Your task to perform on an android device: Go to privacy settings Image 0: 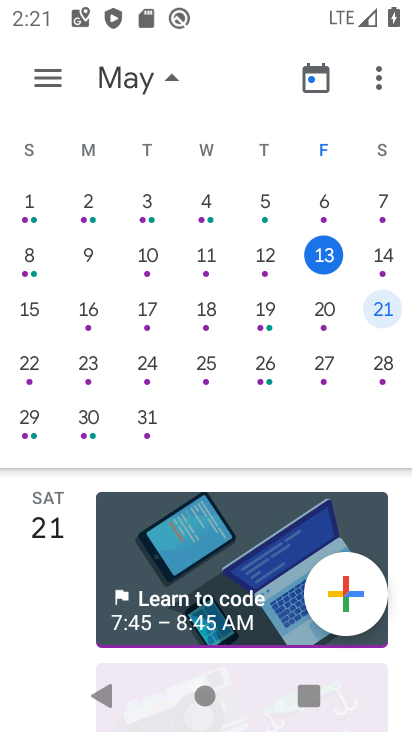
Step 0: press home button
Your task to perform on an android device: Go to privacy settings Image 1: 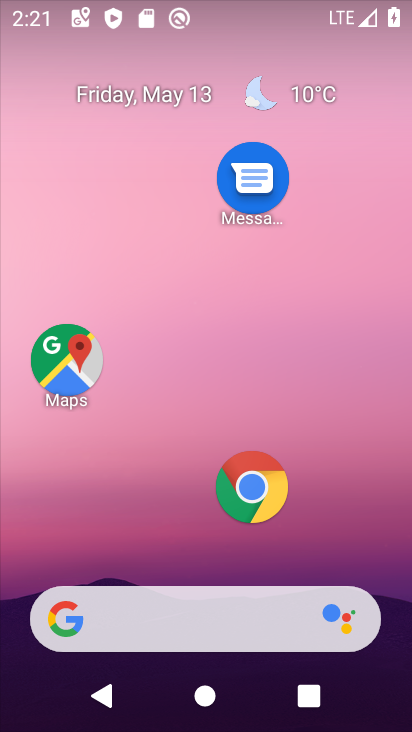
Step 1: drag from (189, 566) to (184, 196)
Your task to perform on an android device: Go to privacy settings Image 2: 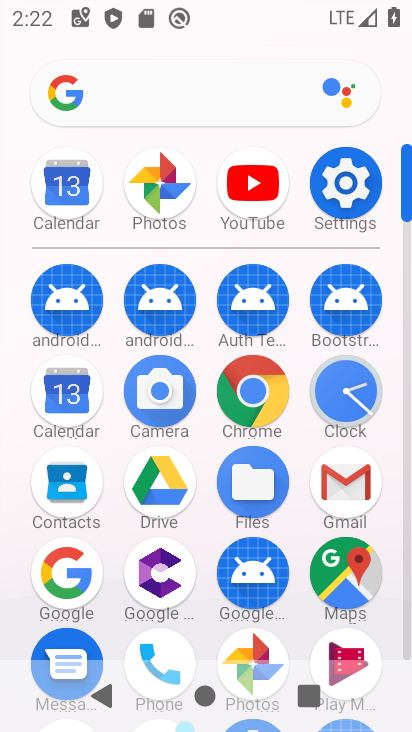
Step 2: click (346, 182)
Your task to perform on an android device: Go to privacy settings Image 3: 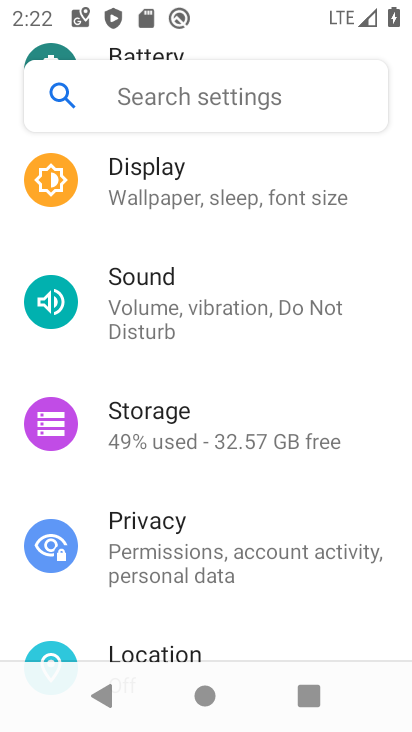
Step 3: click (170, 525)
Your task to perform on an android device: Go to privacy settings Image 4: 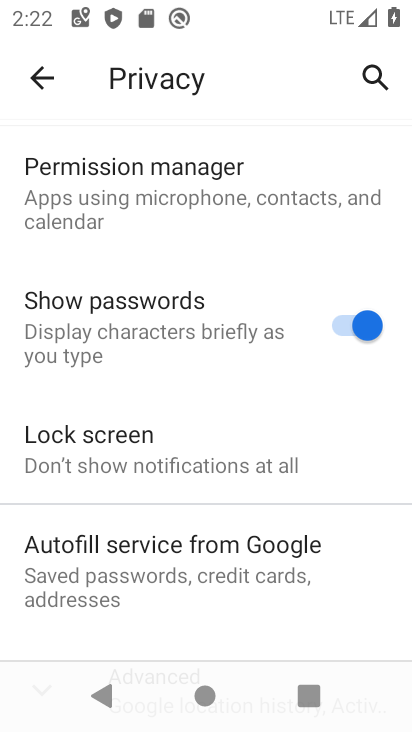
Step 4: task complete